Your task to perform on an android device: set an alarm Image 0: 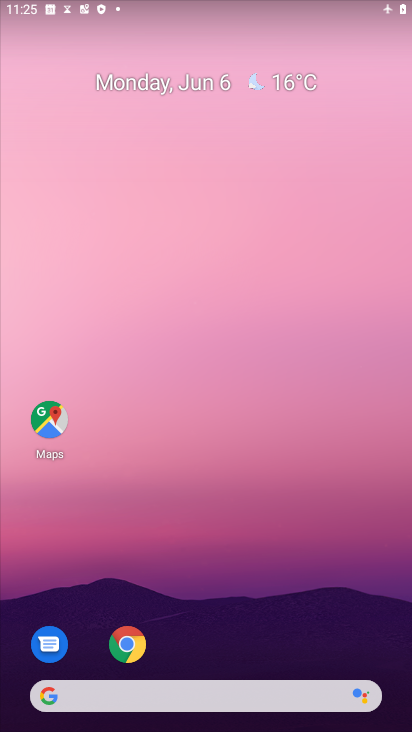
Step 0: drag from (240, 627) to (361, 49)
Your task to perform on an android device: set an alarm Image 1: 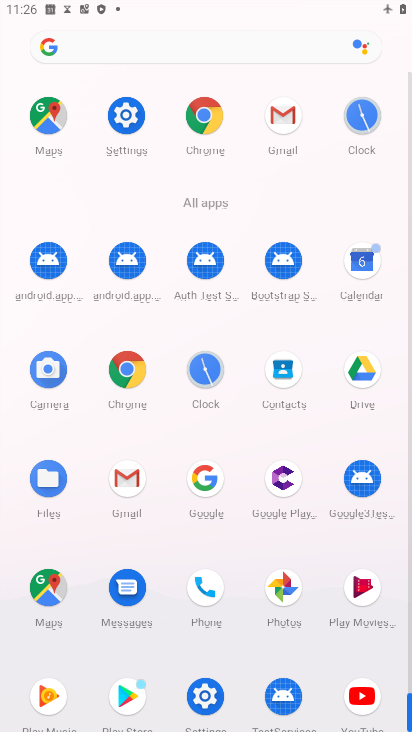
Step 1: click (213, 381)
Your task to perform on an android device: set an alarm Image 2: 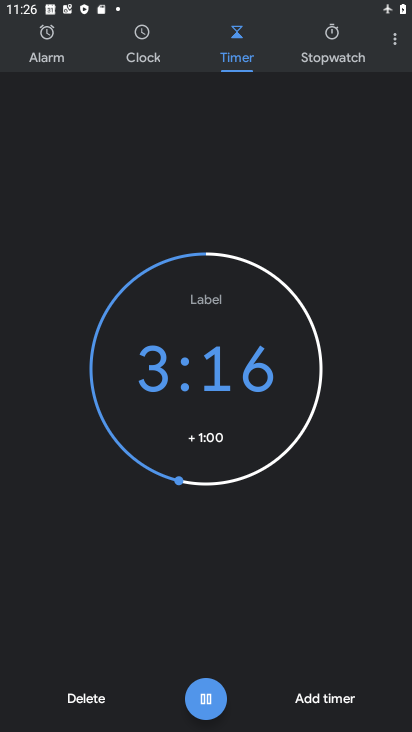
Step 2: click (56, 54)
Your task to perform on an android device: set an alarm Image 3: 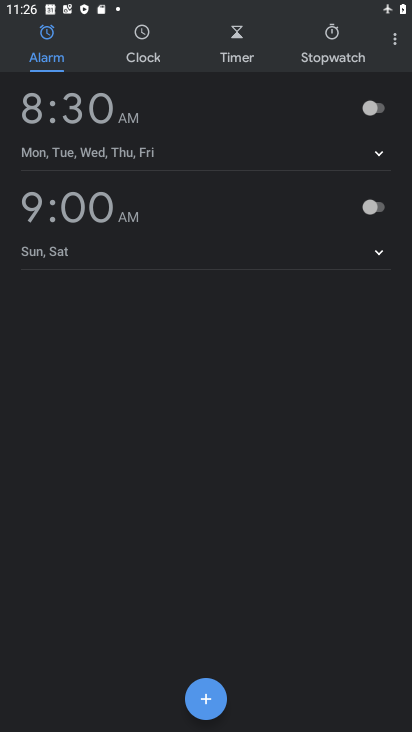
Step 3: click (217, 715)
Your task to perform on an android device: set an alarm Image 4: 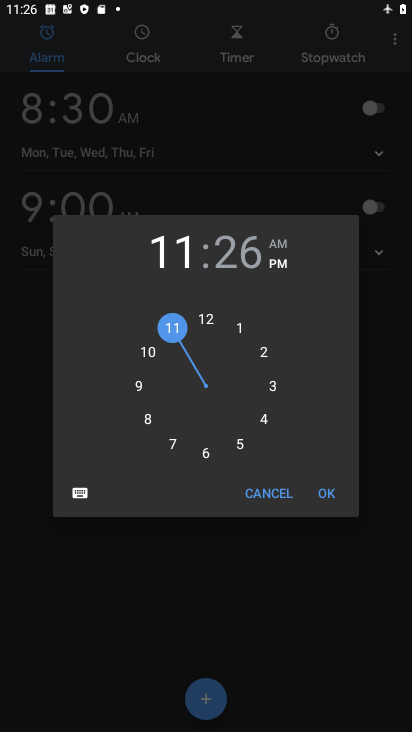
Step 4: click (316, 493)
Your task to perform on an android device: set an alarm Image 5: 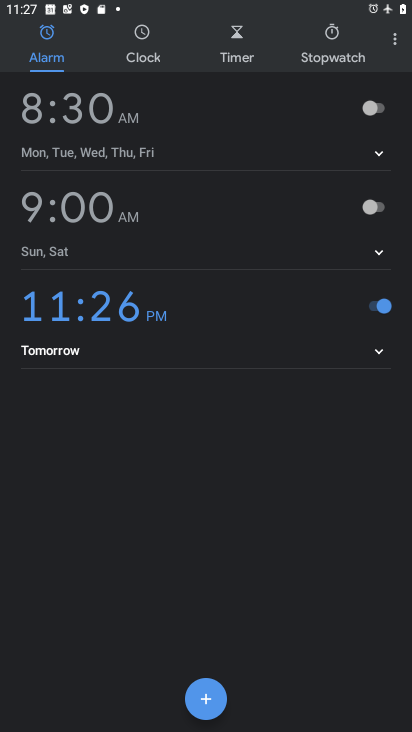
Step 5: task complete